Your task to perform on an android device: When is my next appointment? Image 0: 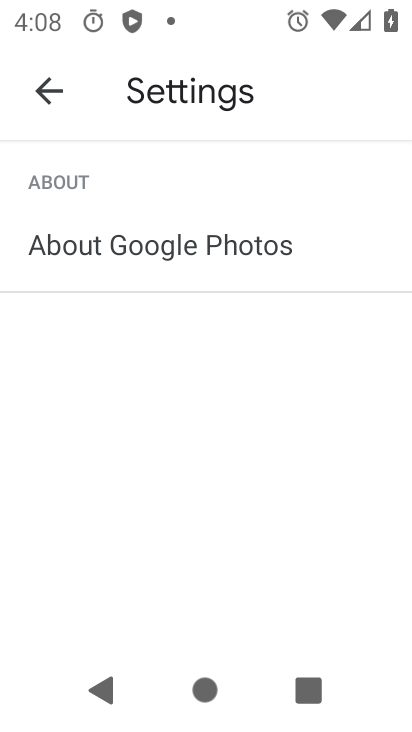
Step 0: press home button
Your task to perform on an android device: When is my next appointment? Image 1: 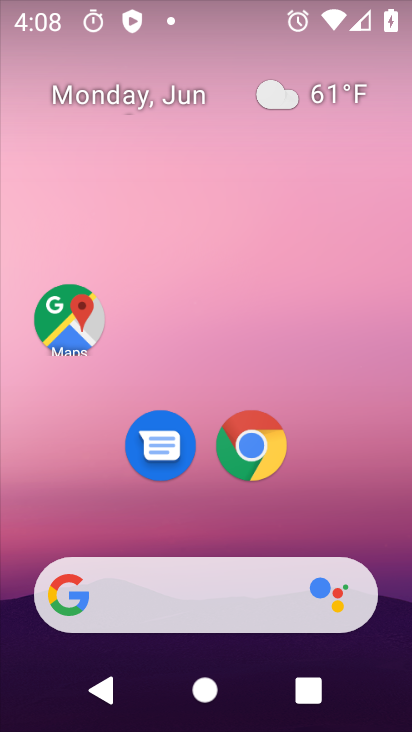
Step 1: drag from (209, 526) to (208, 128)
Your task to perform on an android device: When is my next appointment? Image 2: 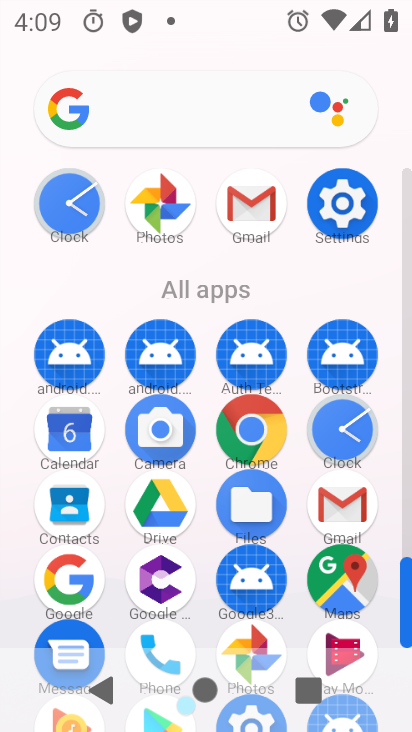
Step 2: click (81, 450)
Your task to perform on an android device: When is my next appointment? Image 3: 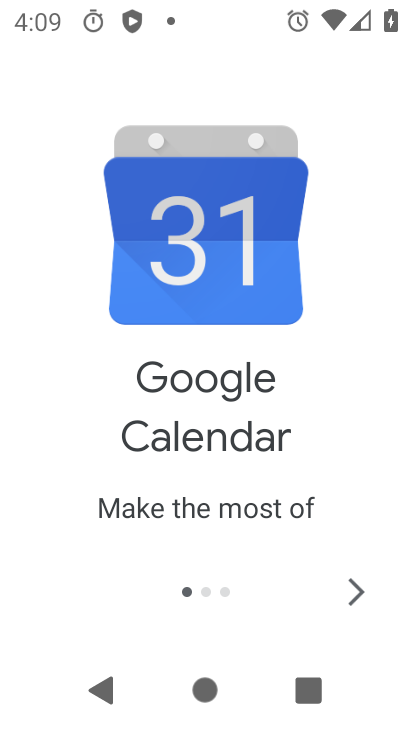
Step 3: click (350, 595)
Your task to perform on an android device: When is my next appointment? Image 4: 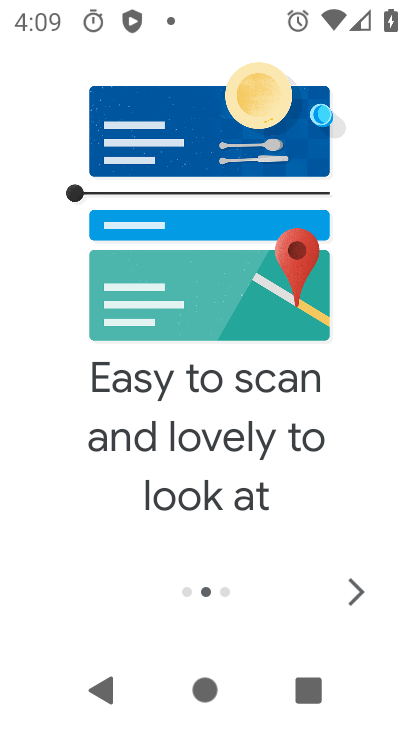
Step 4: click (351, 594)
Your task to perform on an android device: When is my next appointment? Image 5: 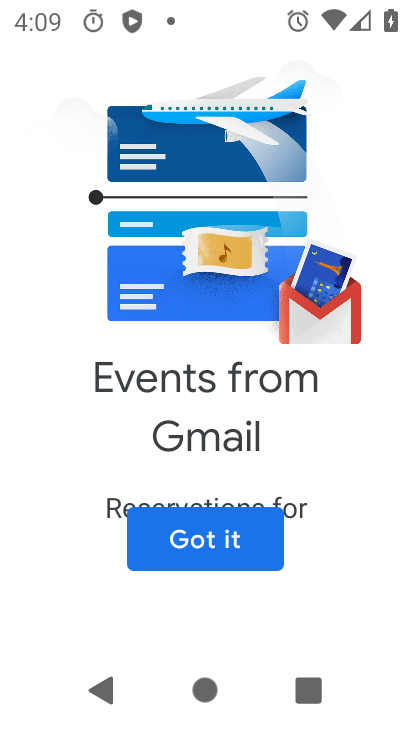
Step 5: click (351, 594)
Your task to perform on an android device: When is my next appointment? Image 6: 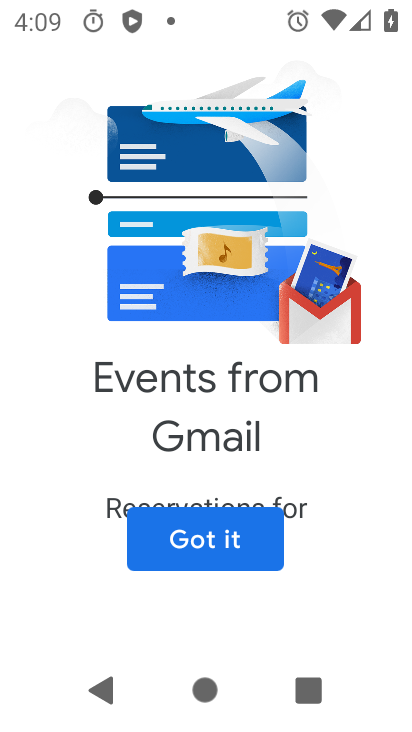
Step 6: click (219, 537)
Your task to perform on an android device: When is my next appointment? Image 7: 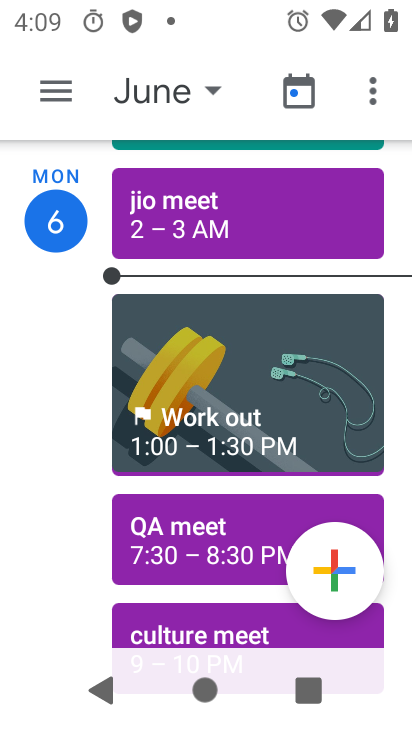
Step 7: task complete